Your task to perform on an android device: Check the news Image 0: 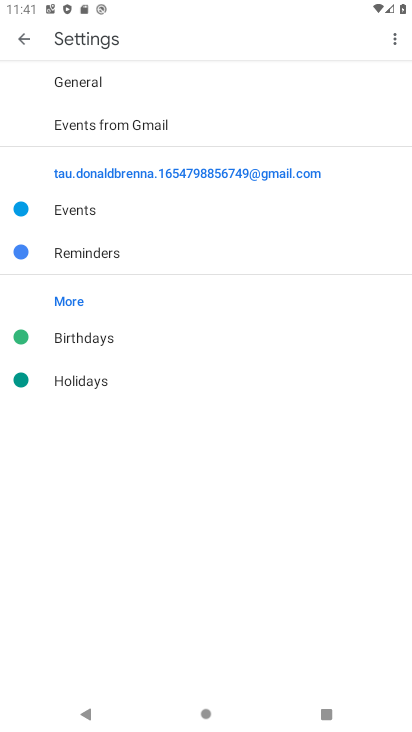
Step 0: press home button
Your task to perform on an android device: Check the news Image 1: 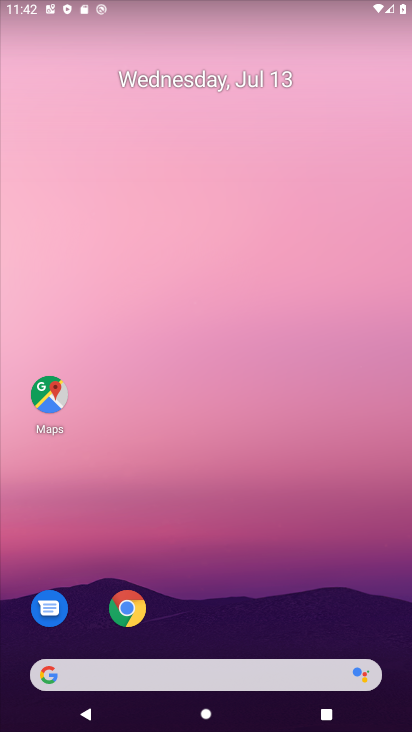
Step 1: click (269, 673)
Your task to perform on an android device: Check the news Image 2: 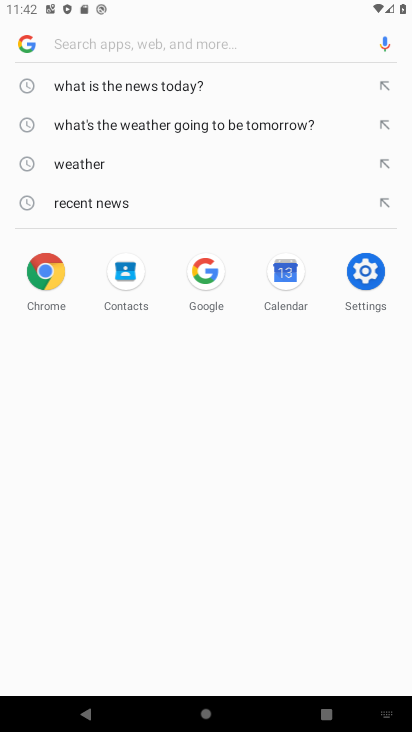
Step 2: type "news"
Your task to perform on an android device: Check the news Image 3: 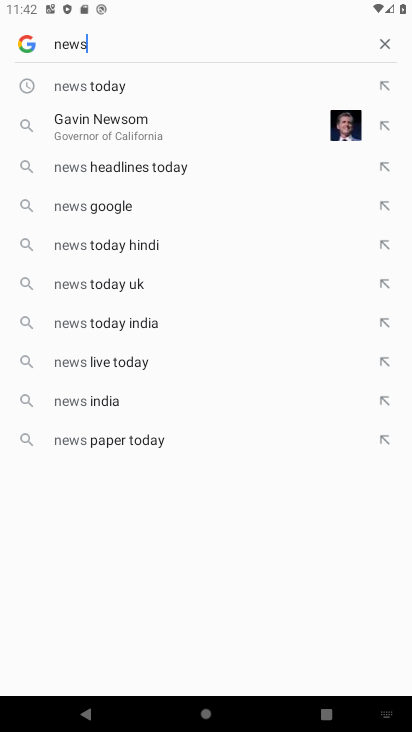
Step 3: press enter
Your task to perform on an android device: Check the news Image 4: 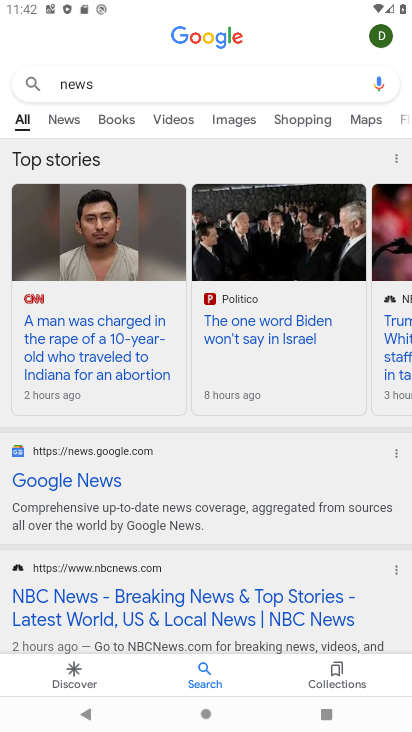
Step 4: task complete